Your task to perform on an android device: turn on priority inbox in the gmail app Image 0: 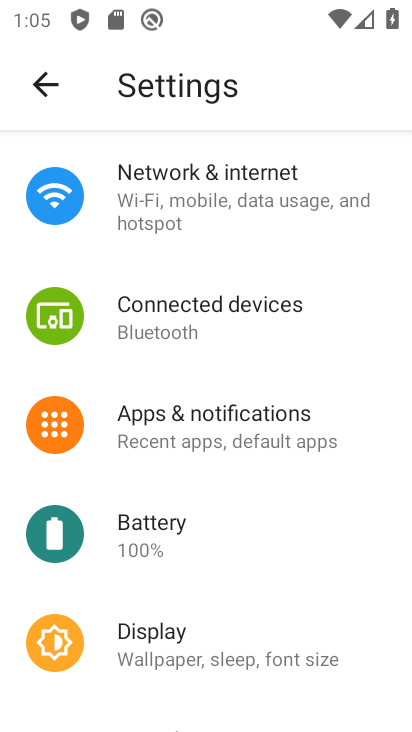
Step 0: press home button
Your task to perform on an android device: turn on priority inbox in the gmail app Image 1: 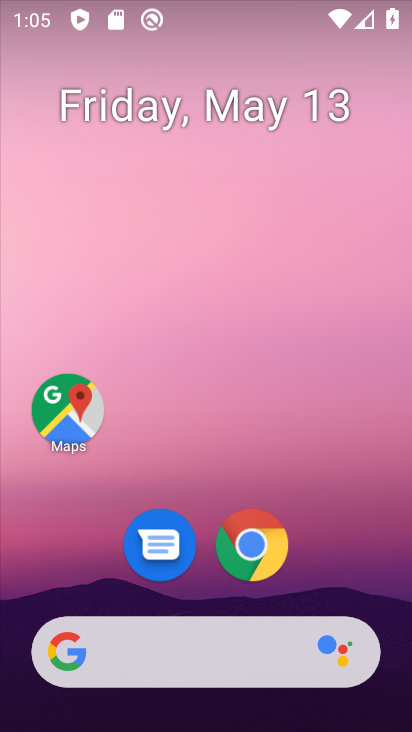
Step 1: drag from (381, 505) to (320, 159)
Your task to perform on an android device: turn on priority inbox in the gmail app Image 2: 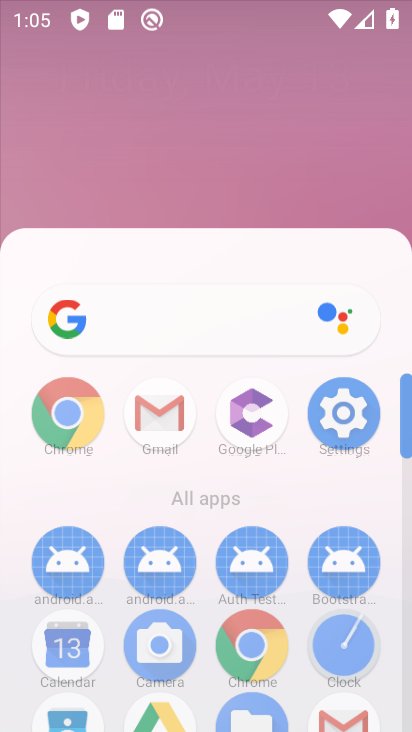
Step 2: drag from (320, 159) to (318, 124)
Your task to perform on an android device: turn on priority inbox in the gmail app Image 3: 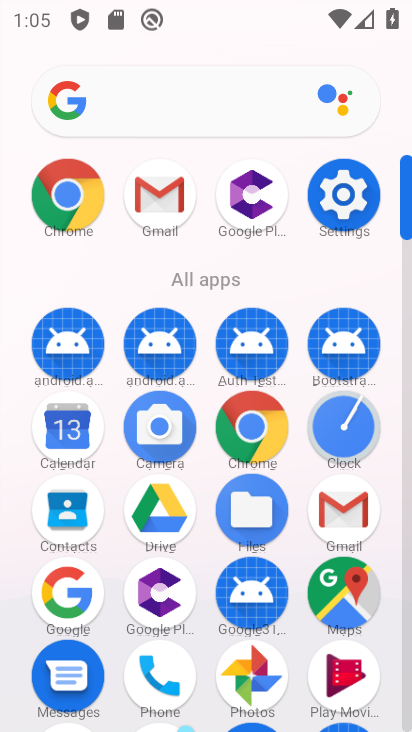
Step 3: click (327, 518)
Your task to perform on an android device: turn on priority inbox in the gmail app Image 4: 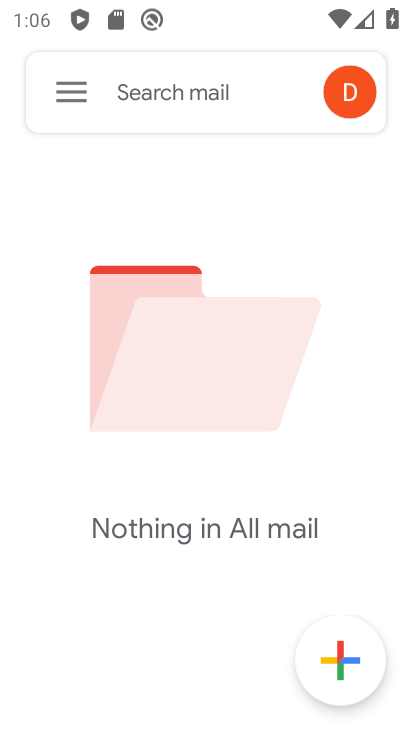
Step 4: click (75, 112)
Your task to perform on an android device: turn on priority inbox in the gmail app Image 5: 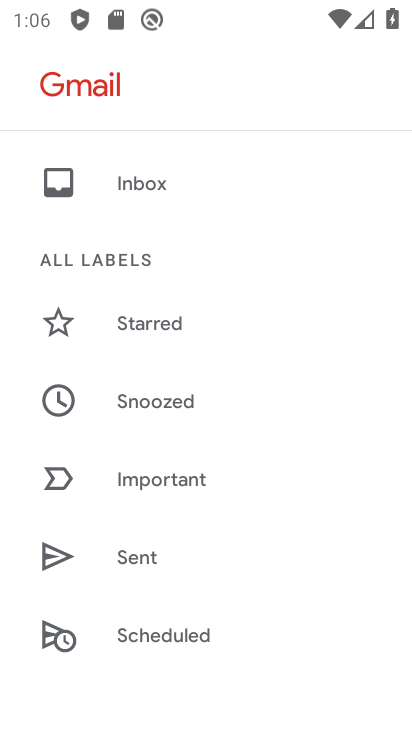
Step 5: drag from (227, 578) to (154, 235)
Your task to perform on an android device: turn on priority inbox in the gmail app Image 6: 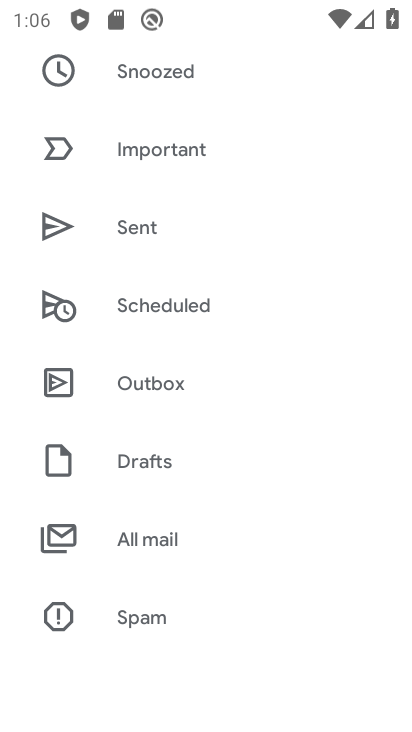
Step 6: drag from (248, 495) to (192, 306)
Your task to perform on an android device: turn on priority inbox in the gmail app Image 7: 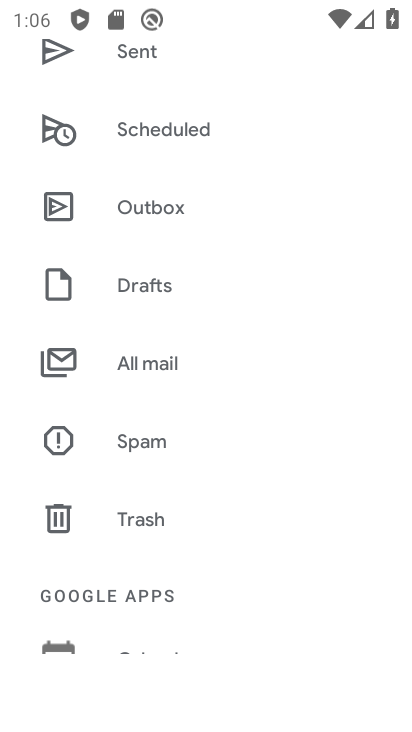
Step 7: drag from (253, 619) to (189, 228)
Your task to perform on an android device: turn on priority inbox in the gmail app Image 8: 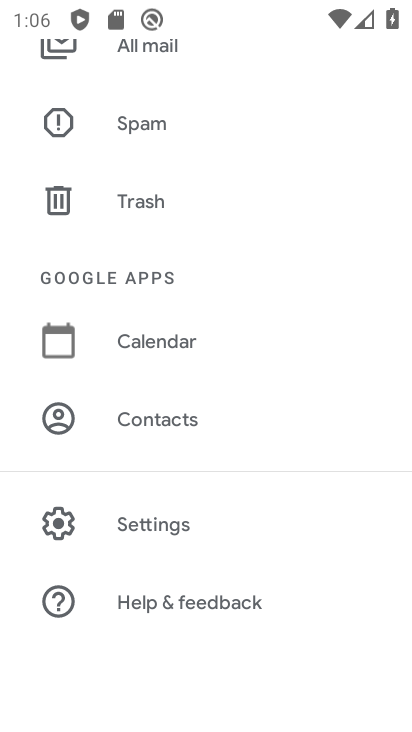
Step 8: click (210, 509)
Your task to perform on an android device: turn on priority inbox in the gmail app Image 9: 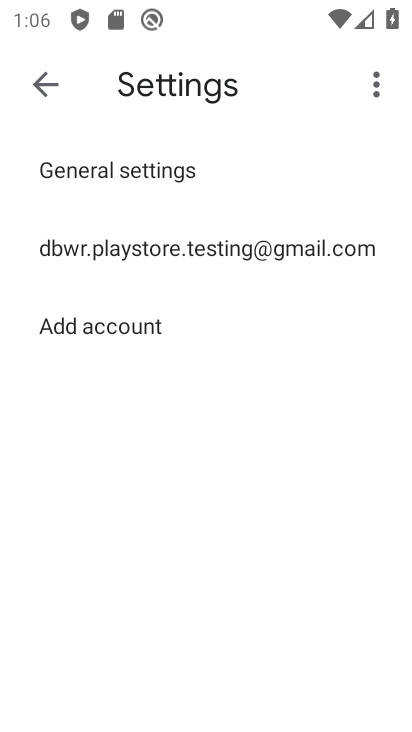
Step 9: click (142, 246)
Your task to perform on an android device: turn on priority inbox in the gmail app Image 10: 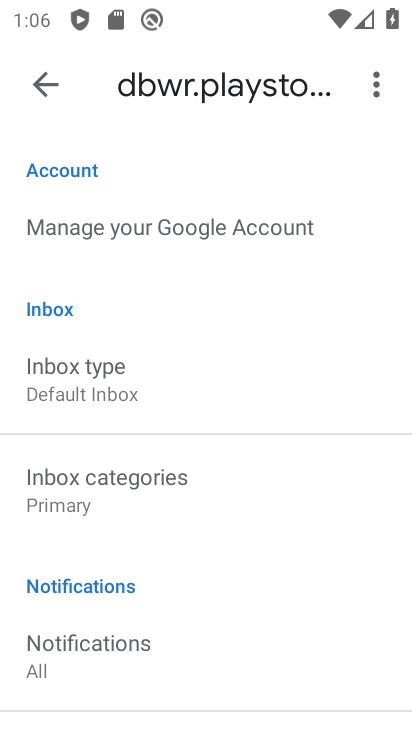
Step 10: drag from (308, 557) to (279, 414)
Your task to perform on an android device: turn on priority inbox in the gmail app Image 11: 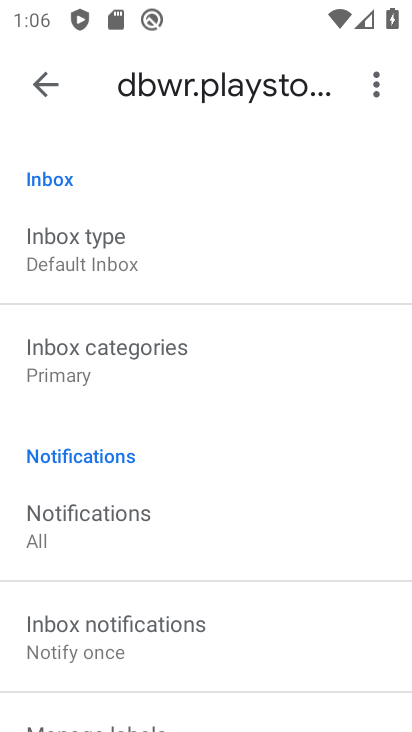
Step 11: click (93, 243)
Your task to perform on an android device: turn on priority inbox in the gmail app Image 12: 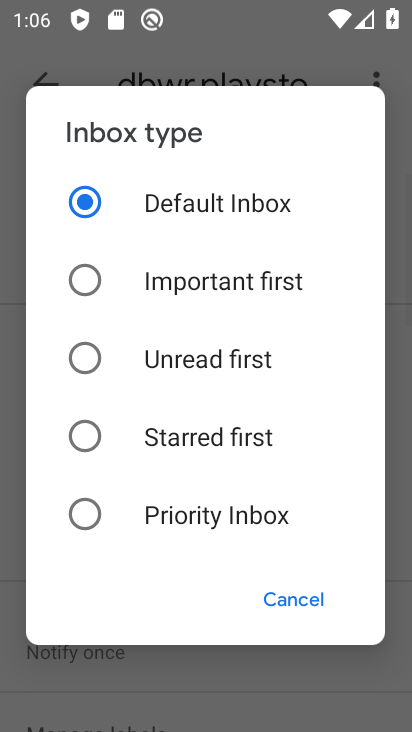
Step 12: click (209, 517)
Your task to perform on an android device: turn on priority inbox in the gmail app Image 13: 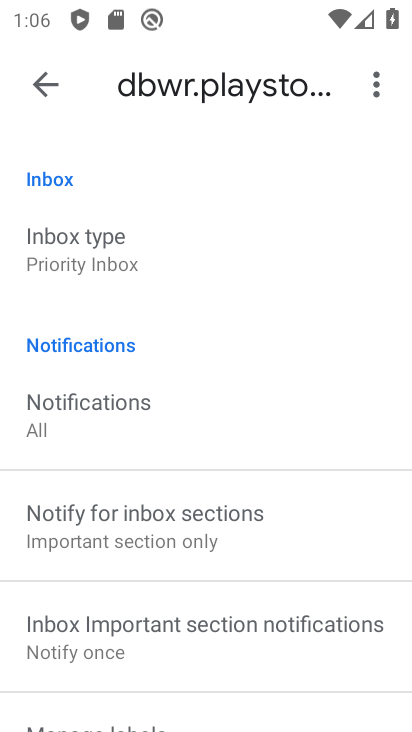
Step 13: task complete